Your task to perform on an android device: toggle priority inbox in the gmail app Image 0: 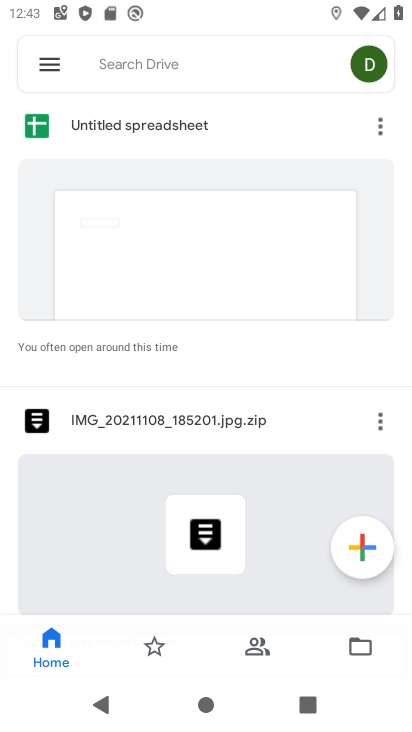
Step 0: drag from (237, 634) to (239, 596)
Your task to perform on an android device: toggle priority inbox in the gmail app Image 1: 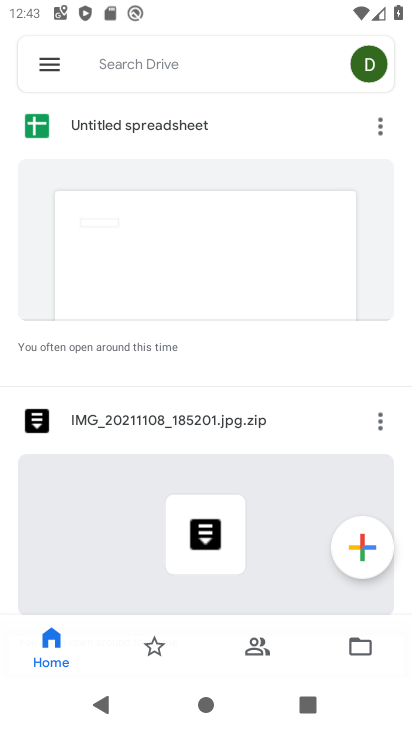
Step 1: press home button
Your task to perform on an android device: toggle priority inbox in the gmail app Image 2: 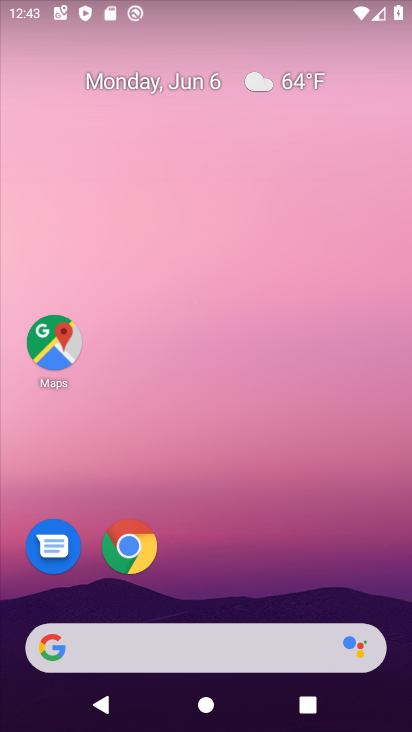
Step 2: drag from (233, 571) to (280, 259)
Your task to perform on an android device: toggle priority inbox in the gmail app Image 3: 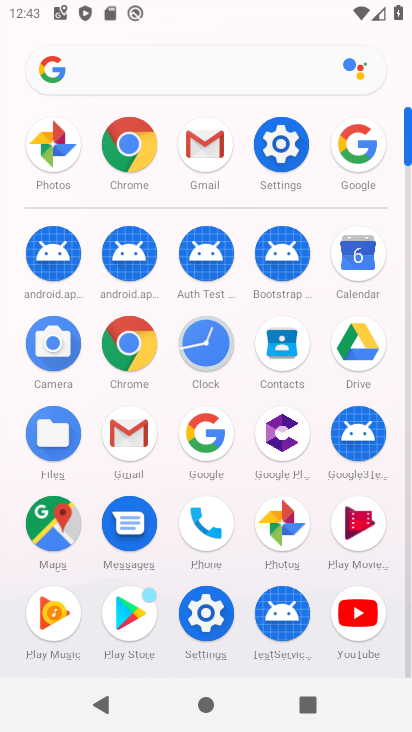
Step 3: click (122, 436)
Your task to perform on an android device: toggle priority inbox in the gmail app Image 4: 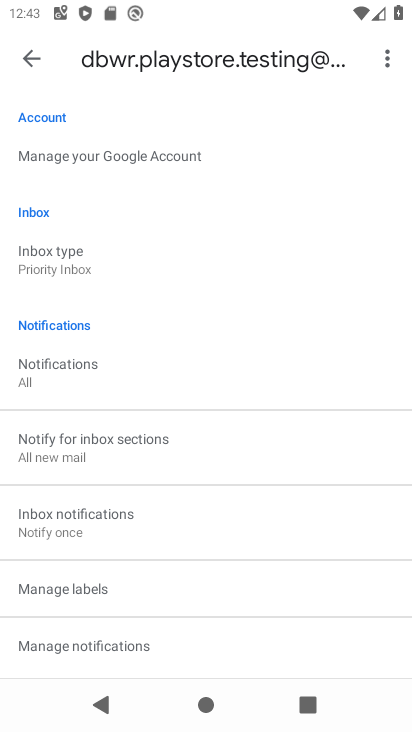
Step 4: click (84, 266)
Your task to perform on an android device: toggle priority inbox in the gmail app Image 5: 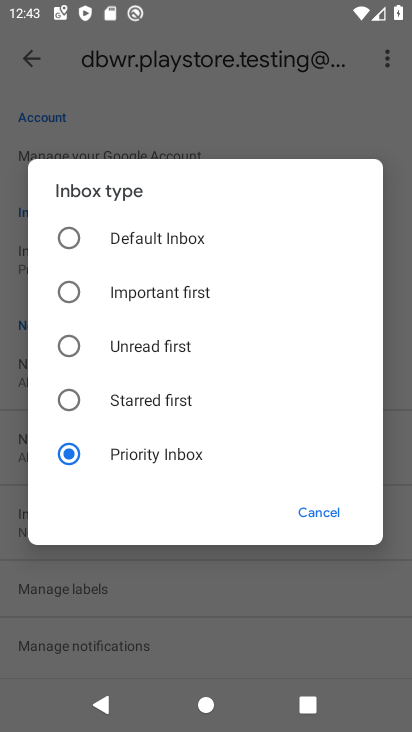
Step 5: click (101, 228)
Your task to perform on an android device: toggle priority inbox in the gmail app Image 6: 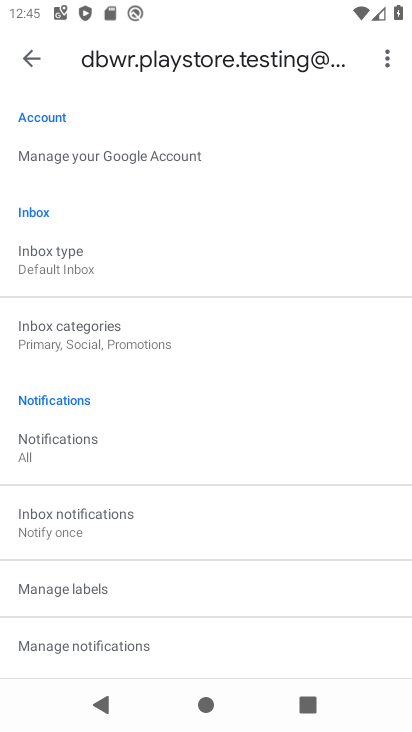
Step 6: task complete